Your task to perform on an android device: Open Youtube and go to "Your channel" Image 0: 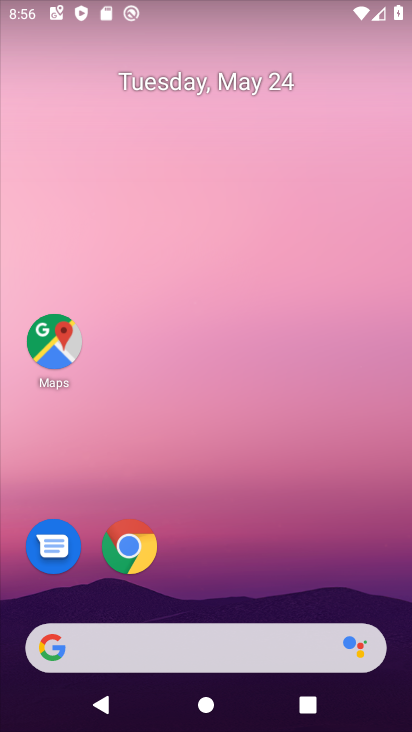
Step 0: drag from (165, 618) to (190, 239)
Your task to perform on an android device: Open Youtube and go to "Your channel" Image 1: 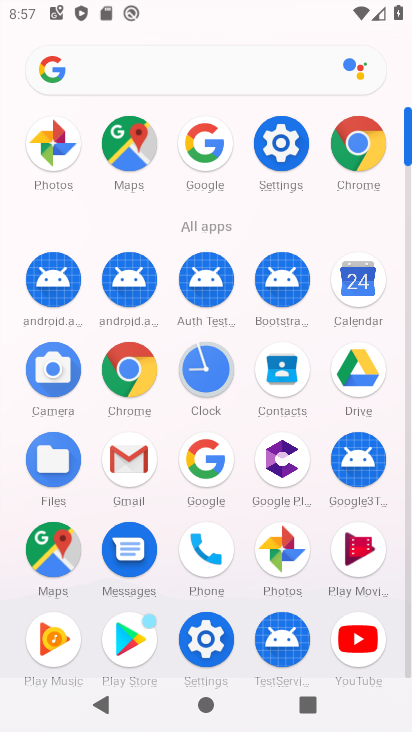
Step 1: click (363, 635)
Your task to perform on an android device: Open Youtube and go to "Your channel" Image 2: 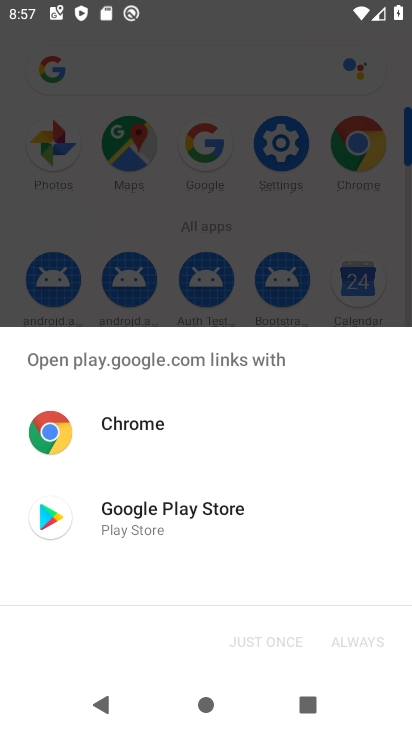
Step 2: click (196, 509)
Your task to perform on an android device: Open Youtube and go to "Your channel" Image 3: 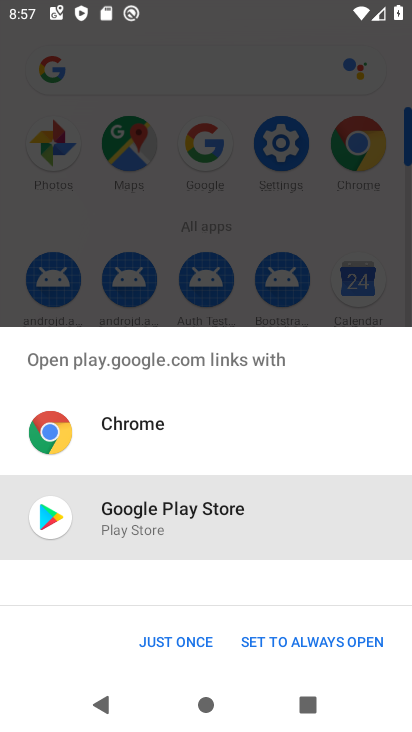
Step 3: click (272, 639)
Your task to perform on an android device: Open Youtube and go to "Your channel" Image 4: 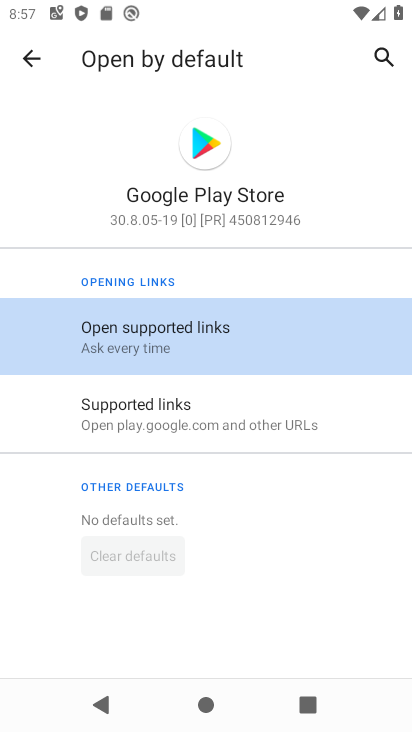
Step 4: click (170, 202)
Your task to perform on an android device: Open Youtube and go to "Your channel" Image 5: 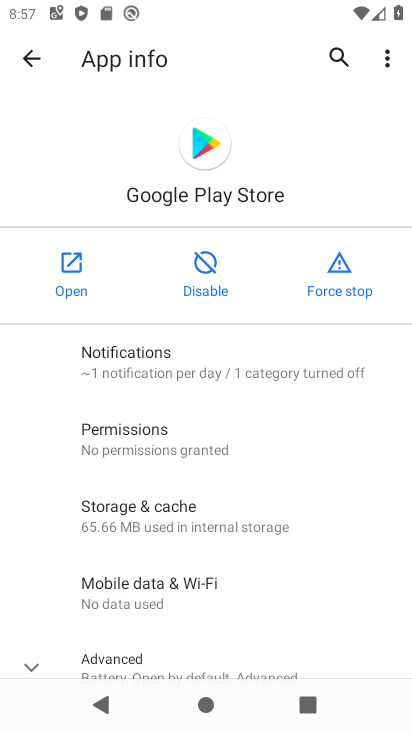
Step 5: click (59, 279)
Your task to perform on an android device: Open Youtube and go to "Your channel" Image 6: 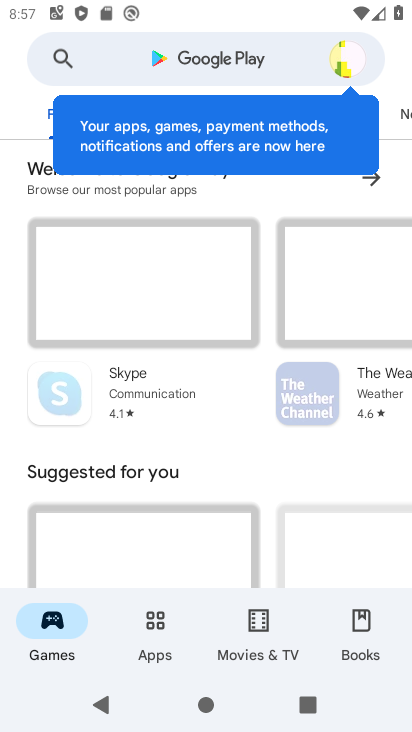
Step 6: click (193, 60)
Your task to perform on an android device: Open Youtube and go to "Your channel" Image 7: 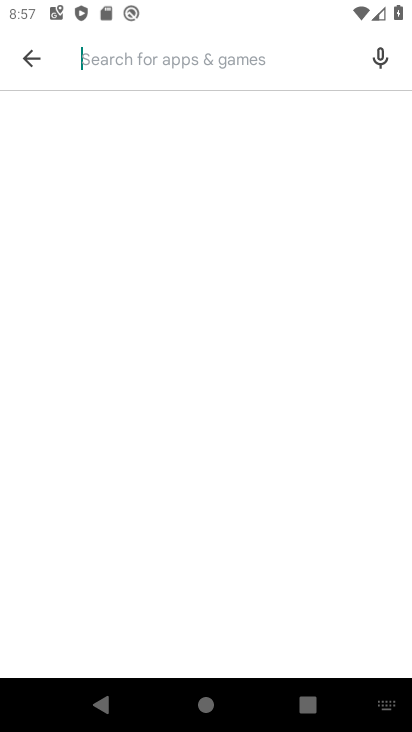
Step 7: type "youtube"
Your task to perform on an android device: Open Youtube and go to "Your channel" Image 8: 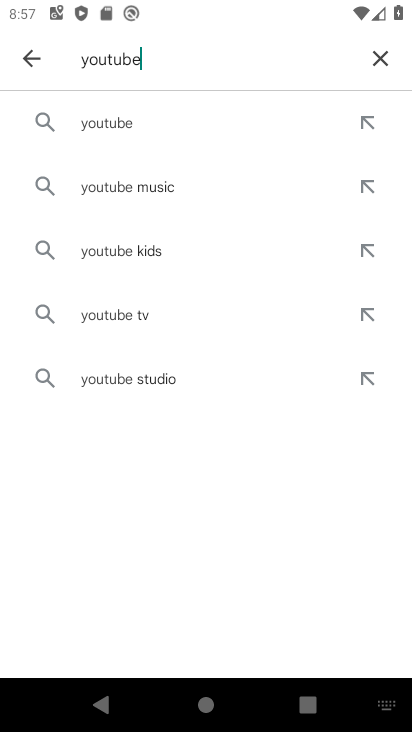
Step 8: click (100, 124)
Your task to perform on an android device: Open Youtube and go to "Your channel" Image 9: 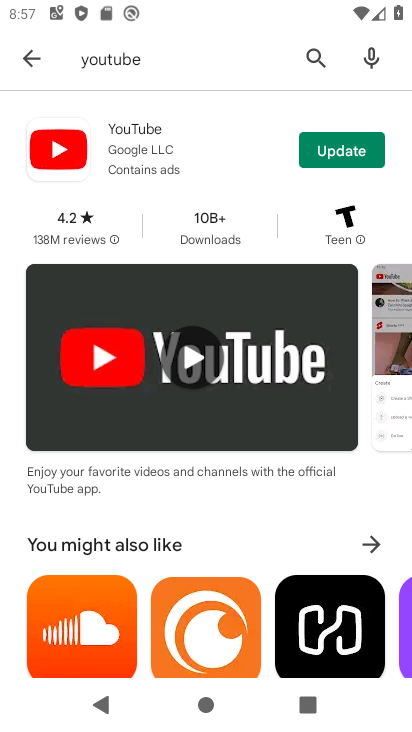
Step 9: click (328, 140)
Your task to perform on an android device: Open Youtube and go to "Your channel" Image 10: 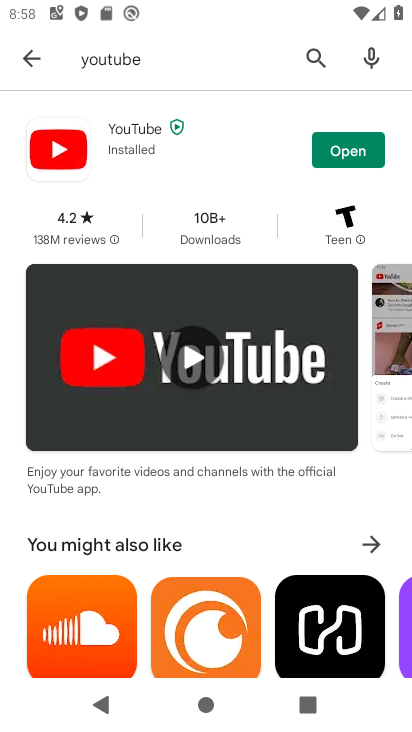
Step 10: click (346, 150)
Your task to perform on an android device: Open Youtube and go to "Your channel" Image 11: 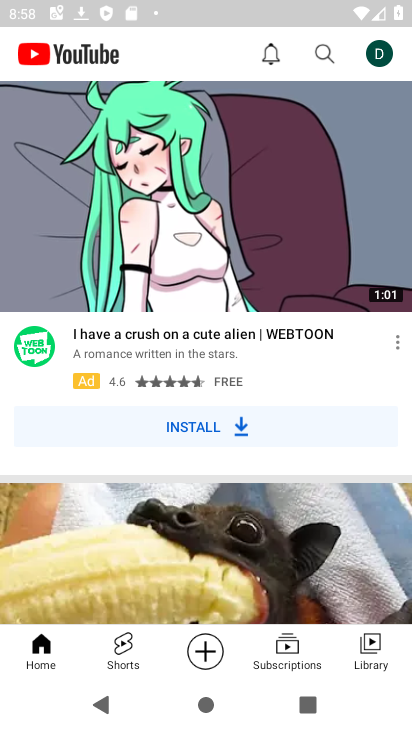
Step 11: click (384, 50)
Your task to perform on an android device: Open Youtube and go to "Your channel" Image 12: 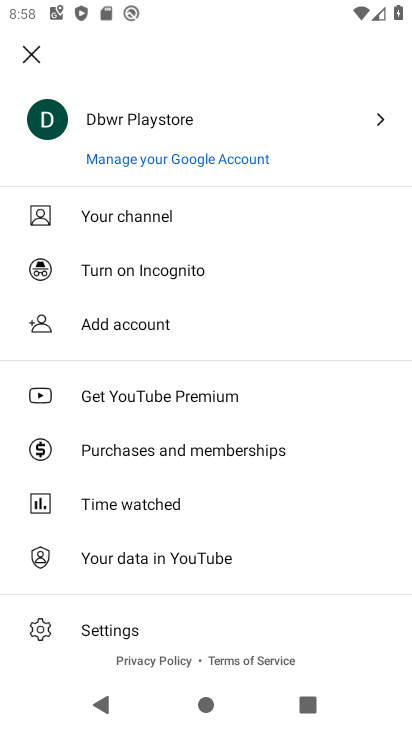
Step 12: click (121, 218)
Your task to perform on an android device: Open Youtube and go to "Your channel" Image 13: 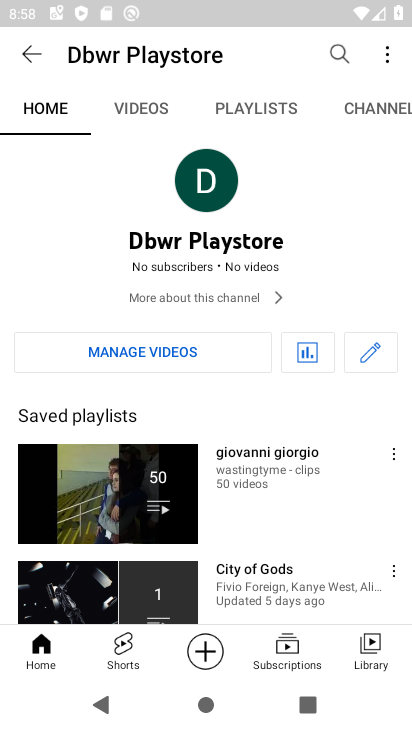
Step 13: task complete